Your task to perform on an android device: Go to notification settings Image 0: 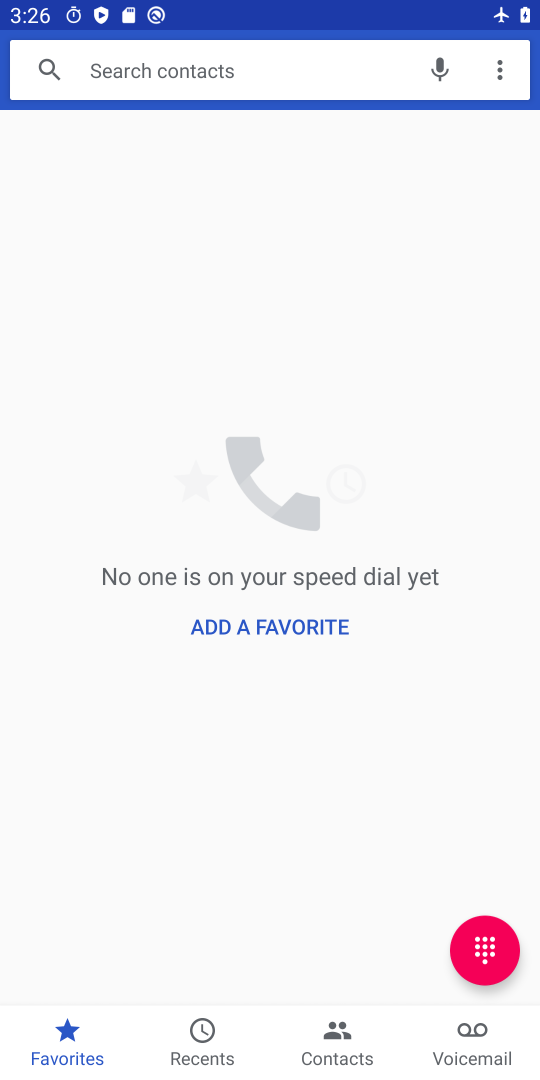
Step 0: press home button
Your task to perform on an android device: Go to notification settings Image 1: 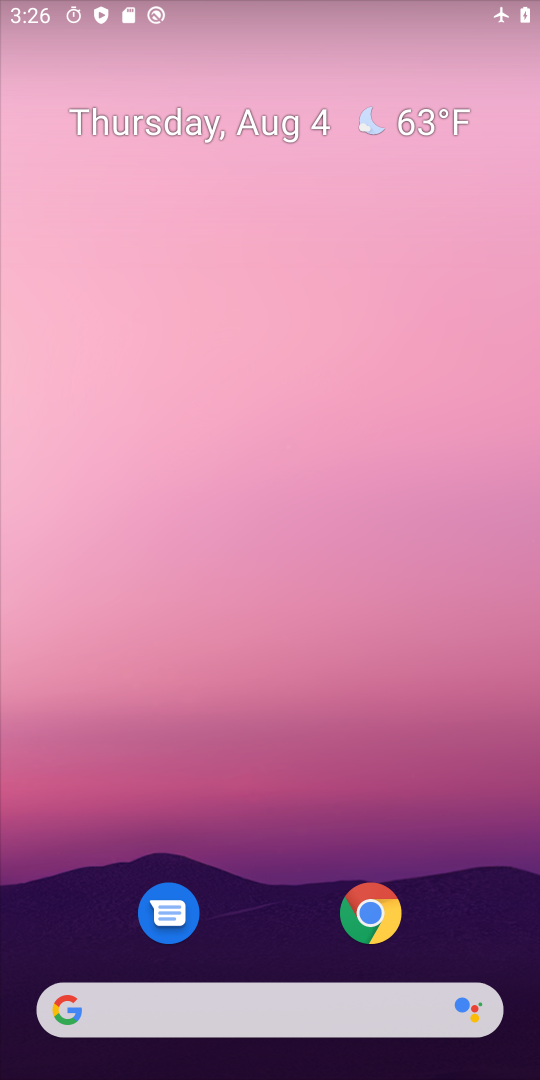
Step 1: drag from (137, 970) to (250, 55)
Your task to perform on an android device: Go to notification settings Image 2: 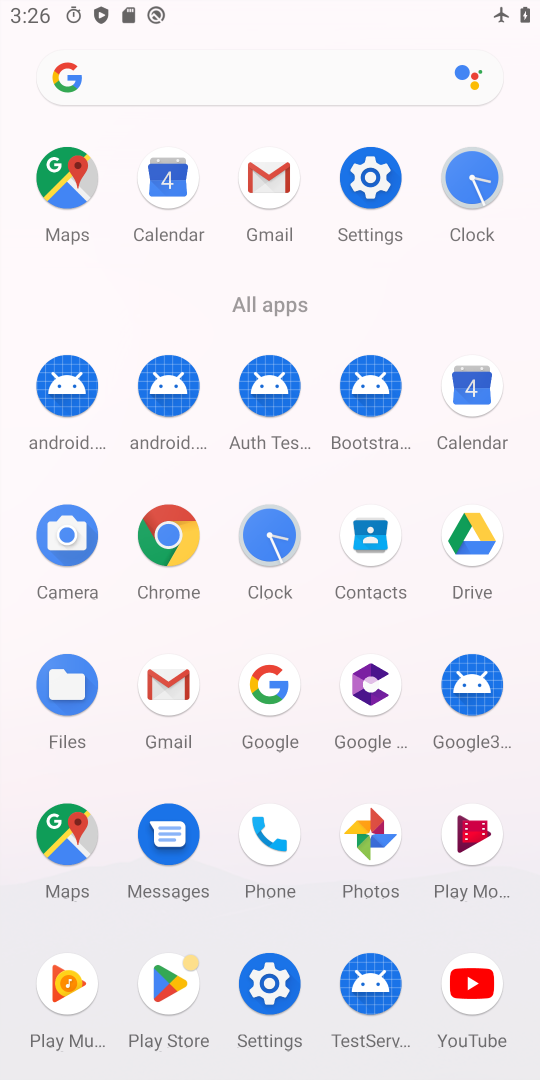
Step 2: click (367, 191)
Your task to perform on an android device: Go to notification settings Image 3: 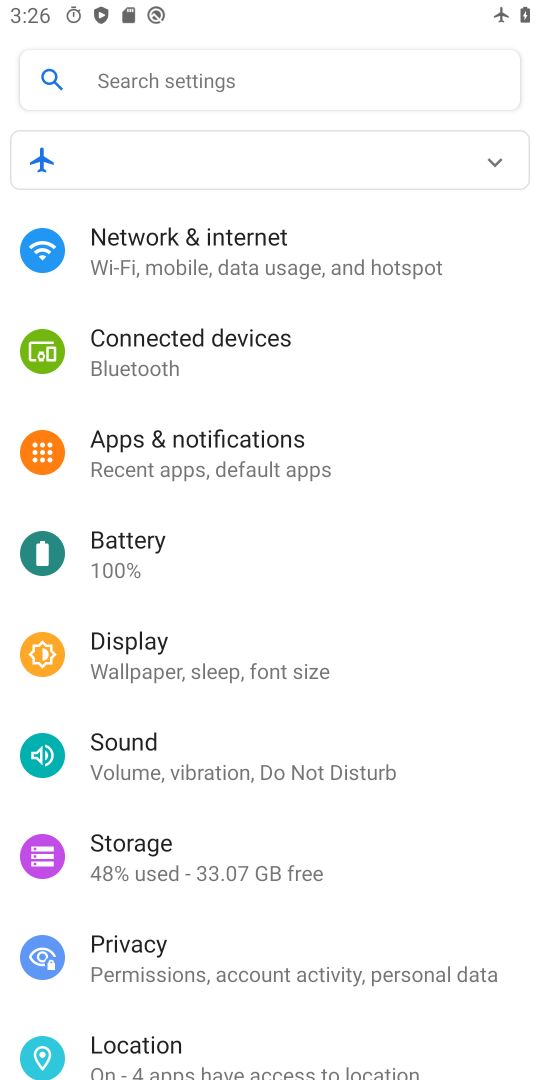
Step 3: click (186, 459)
Your task to perform on an android device: Go to notification settings Image 4: 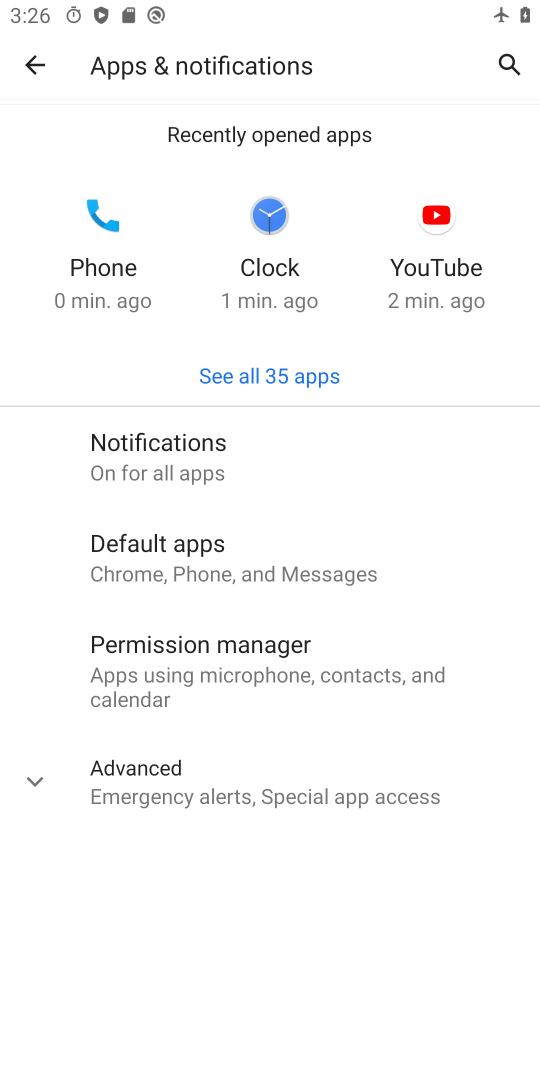
Step 4: task complete